Your task to perform on an android device: When is my next meeting? Image 0: 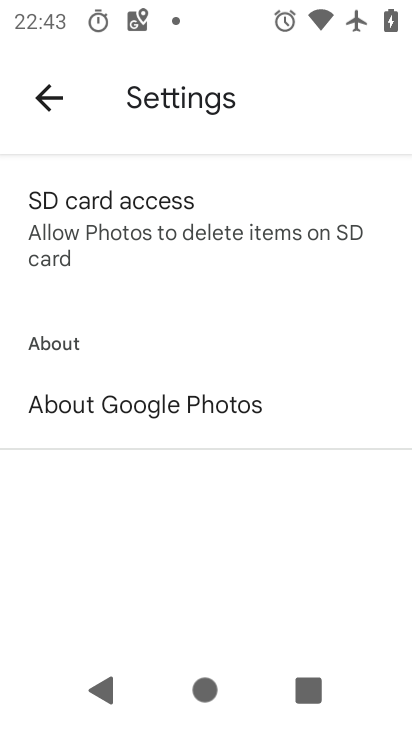
Step 0: press home button
Your task to perform on an android device: When is my next meeting? Image 1: 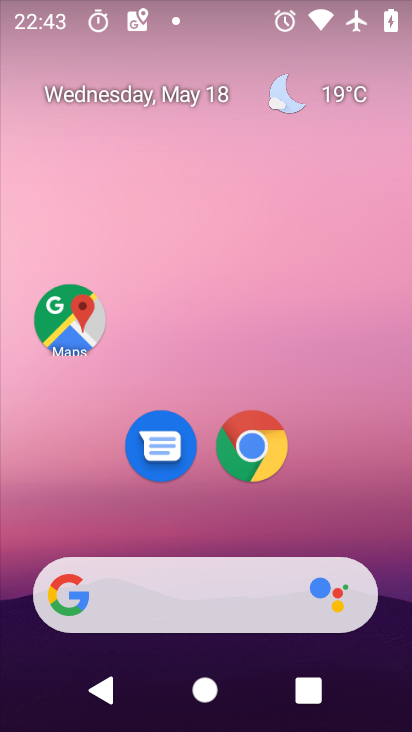
Step 1: drag from (302, 254) to (330, 167)
Your task to perform on an android device: When is my next meeting? Image 2: 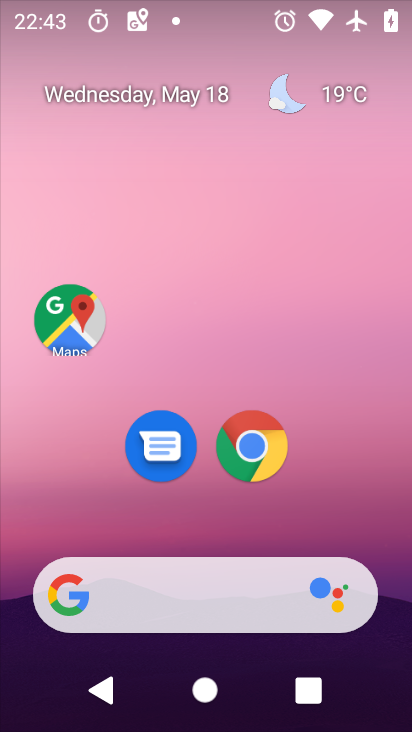
Step 2: drag from (183, 574) to (323, 103)
Your task to perform on an android device: When is my next meeting? Image 3: 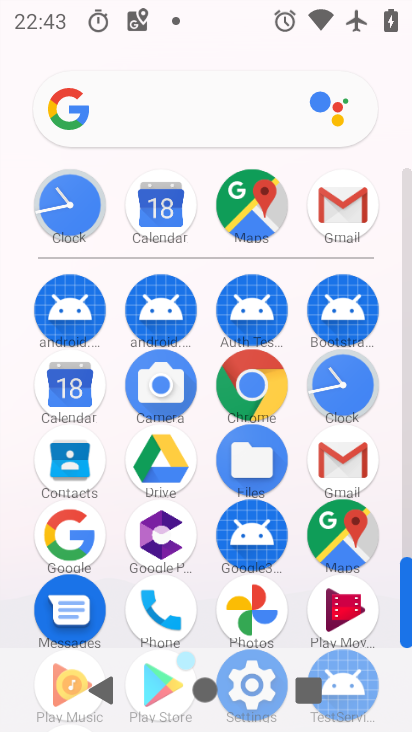
Step 3: click (75, 400)
Your task to perform on an android device: When is my next meeting? Image 4: 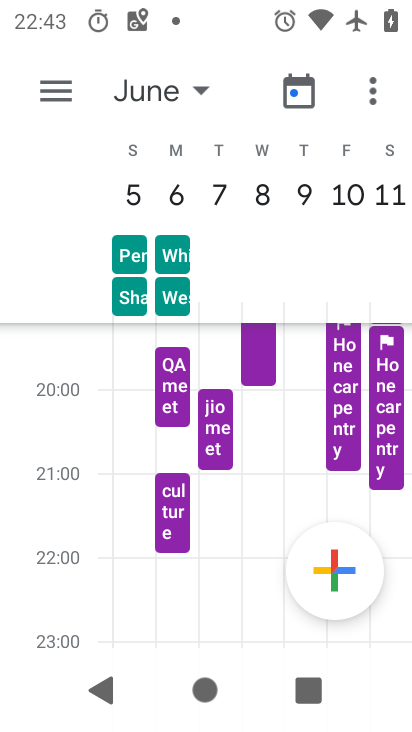
Step 4: click (159, 92)
Your task to perform on an android device: When is my next meeting? Image 5: 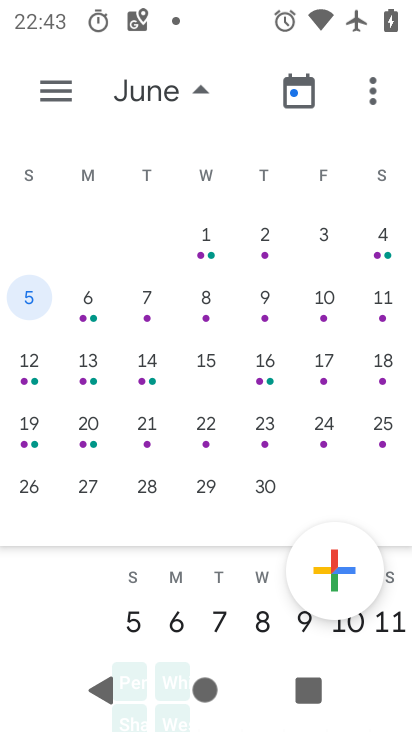
Step 5: drag from (104, 384) to (408, 467)
Your task to perform on an android device: When is my next meeting? Image 6: 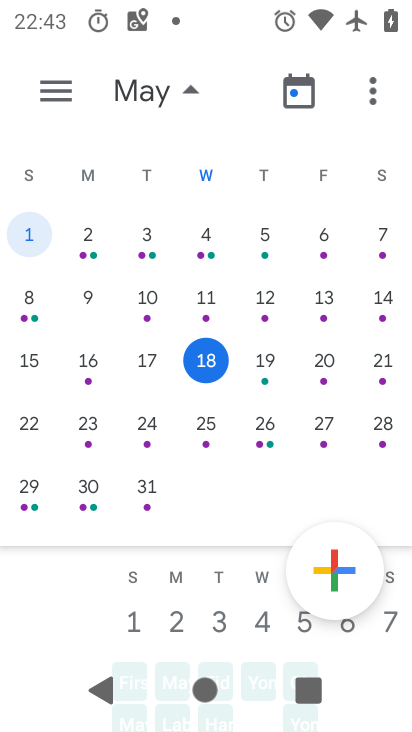
Step 6: click (222, 368)
Your task to perform on an android device: When is my next meeting? Image 7: 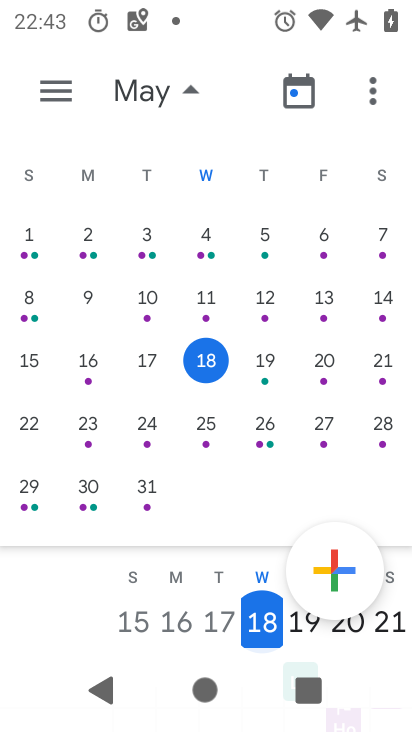
Step 7: click (48, 84)
Your task to perform on an android device: When is my next meeting? Image 8: 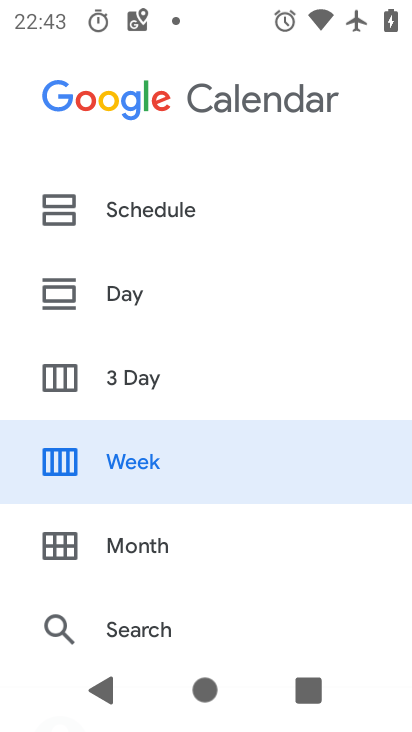
Step 8: click (147, 217)
Your task to perform on an android device: When is my next meeting? Image 9: 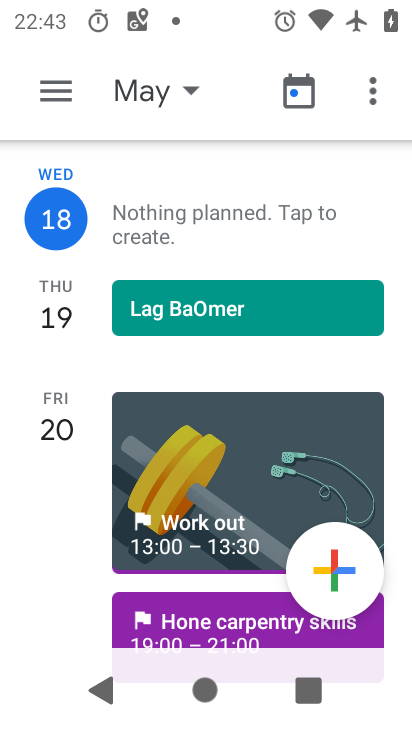
Step 9: drag from (199, 537) to (349, 222)
Your task to perform on an android device: When is my next meeting? Image 10: 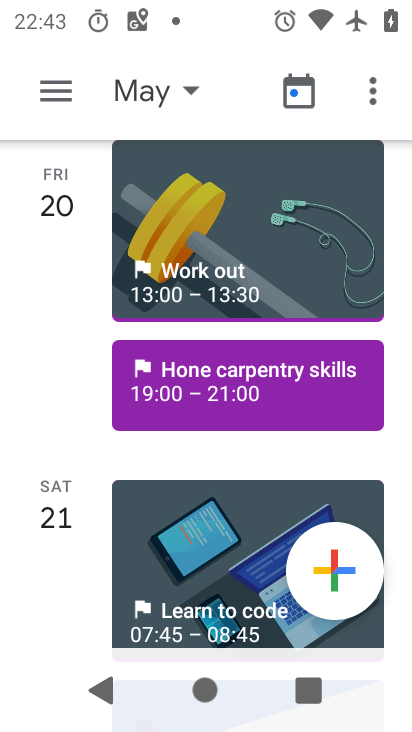
Step 10: click (225, 383)
Your task to perform on an android device: When is my next meeting? Image 11: 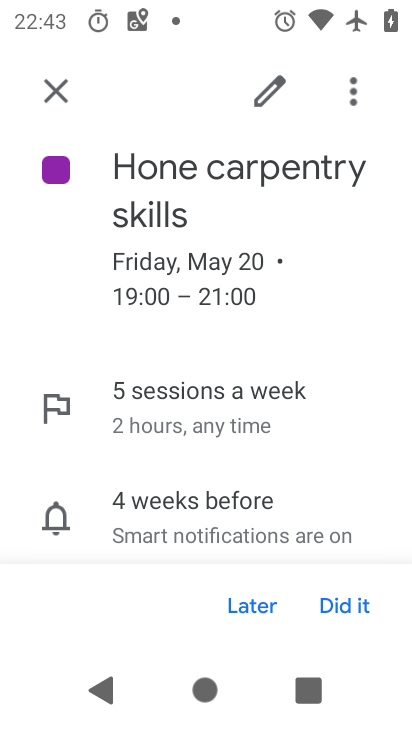
Step 11: task complete